Your task to perform on an android device: View the shopping cart on newegg. Add razer nari to the cart on newegg, then select checkout. Image 0: 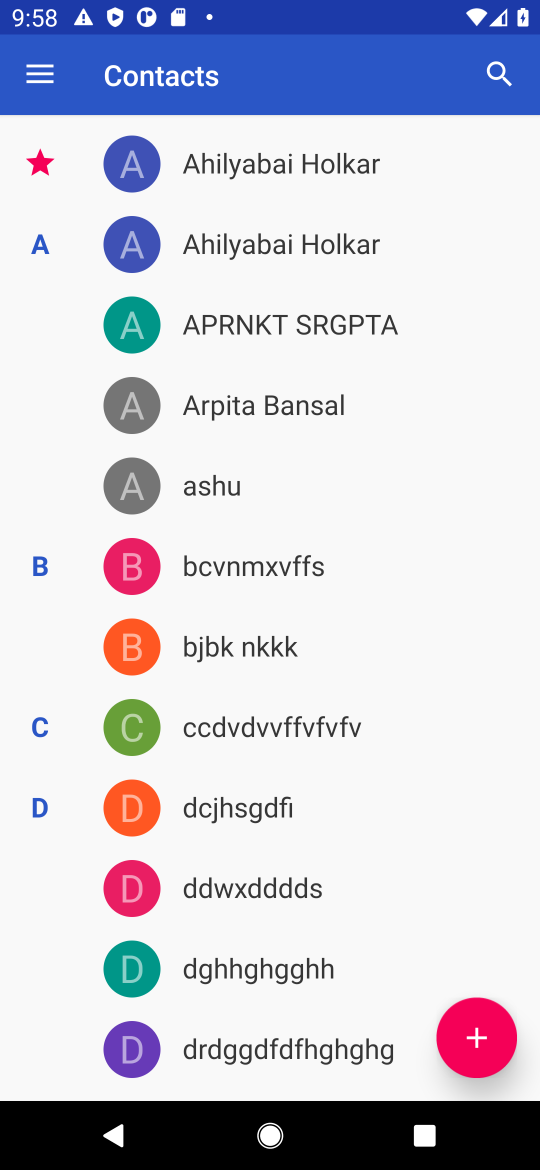
Step 0: press home button
Your task to perform on an android device: View the shopping cart on newegg. Add razer nari to the cart on newegg, then select checkout. Image 1: 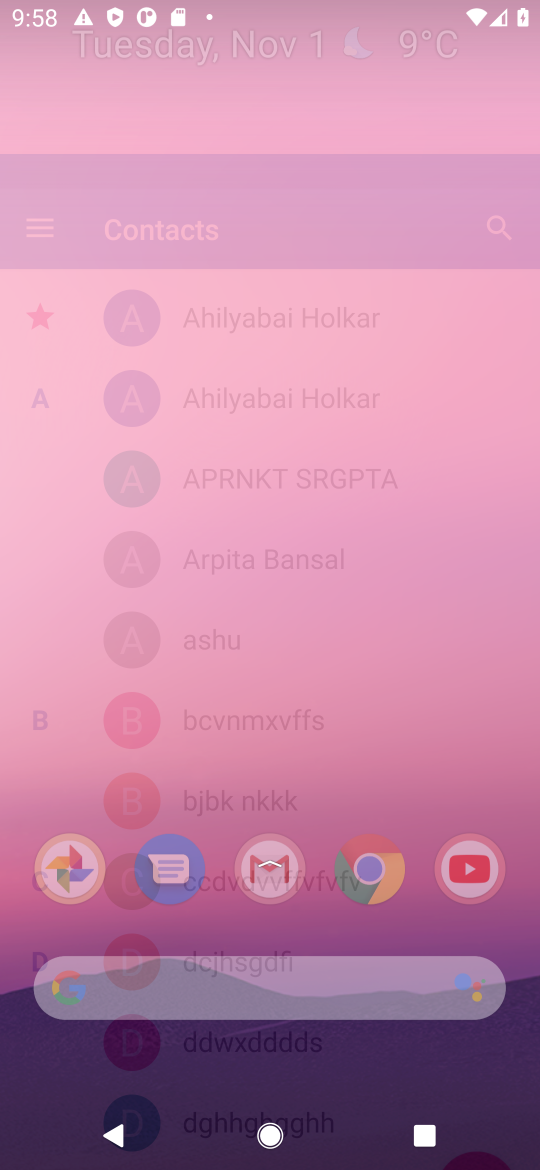
Step 1: press home button
Your task to perform on an android device: View the shopping cart on newegg. Add razer nari to the cart on newegg, then select checkout. Image 2: 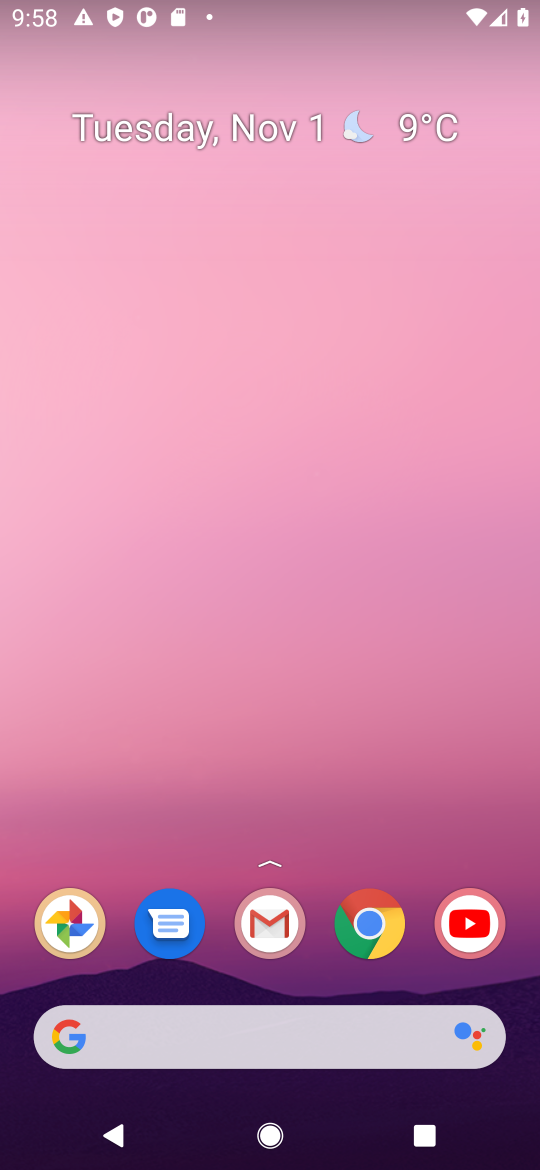
Step 2: drag from (324, 971) to (39, 148)
Your task to perform on an android device: View the shopping cart on newegg. Add razer nari to the cart on newegg, then select checkout. Image 3: 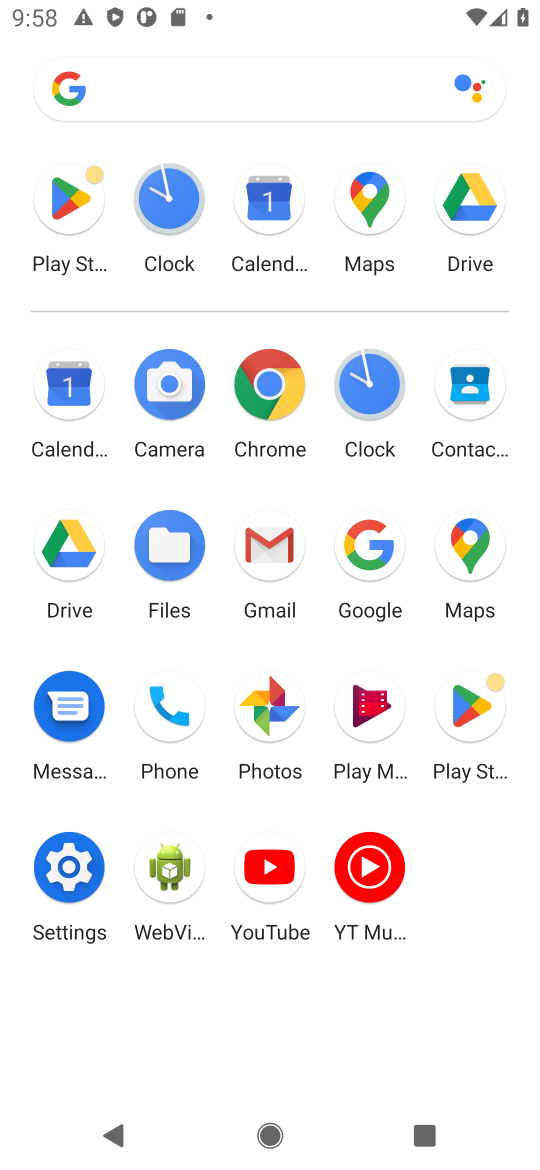
Step 3: click (278, 382)
Your task to perform on an android device: View the shopping cart on newegg. Add razer nari to the cart on newegg, then select checkout. Image 4: 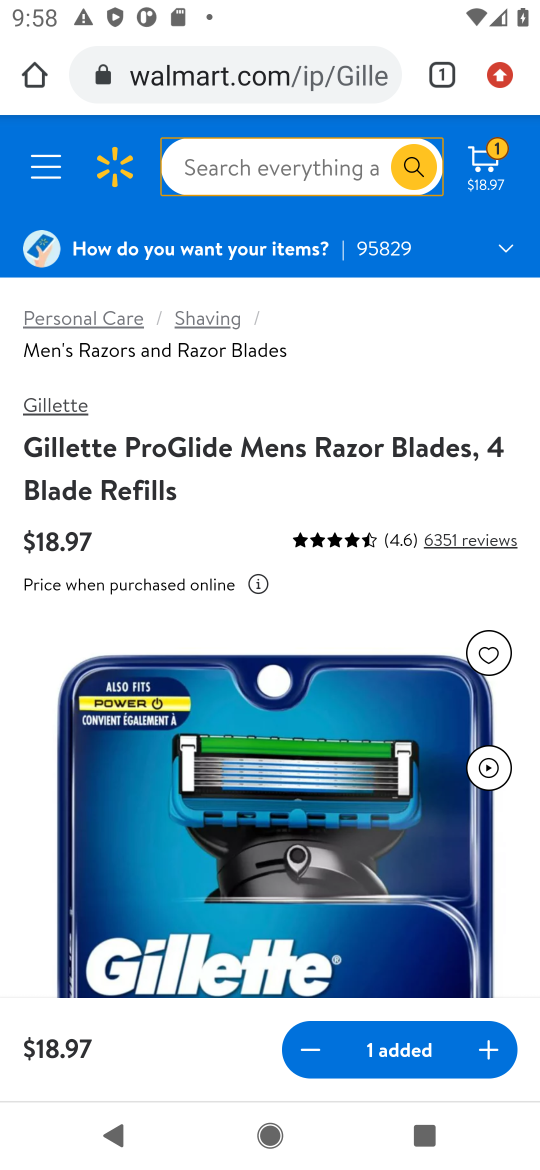
Step 4: click (241, 49)
Your task to perform on an android device: View the shopping cart on newegg. Add razer nari to the cart on newegg, then select checkout. Image 5: 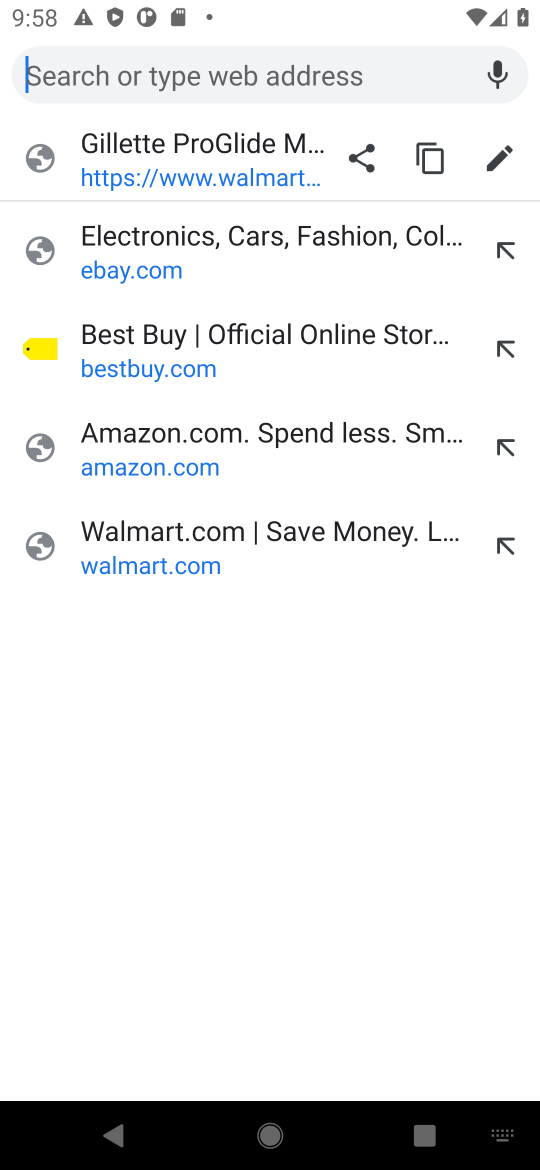
Step 5: type "newegg.com"
Your task to perform on an android device: View the shopping cart on newegg. Add razer nari to the cart on newegg, then select checkout. Image 6: 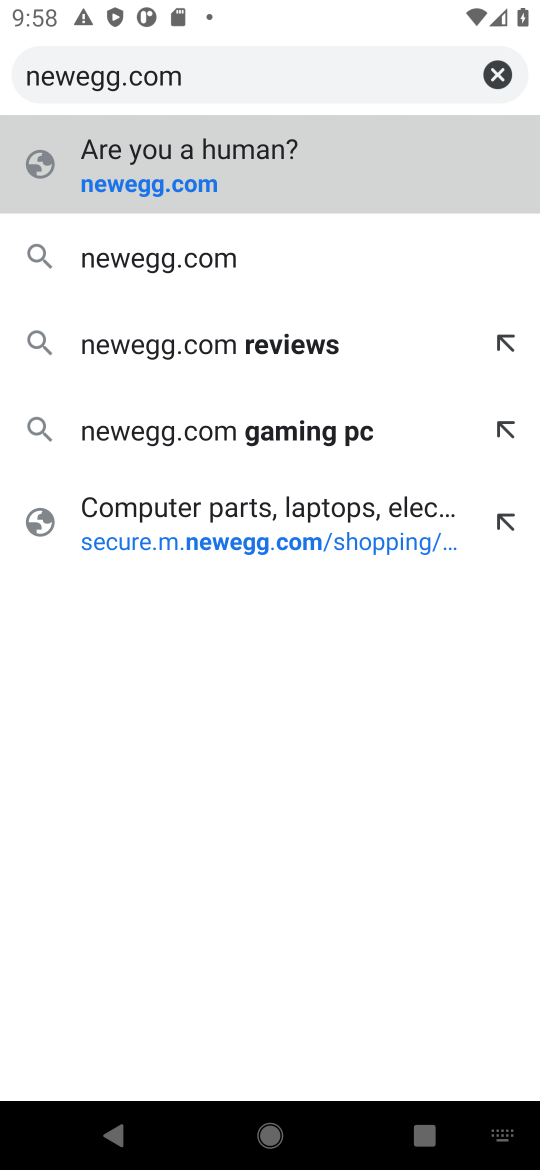
Step 6: press enter
Your task to perform on an android device: View the shopping cart on newegg. Add razer nari to the cart on newegg, then select checkout. Image 7: 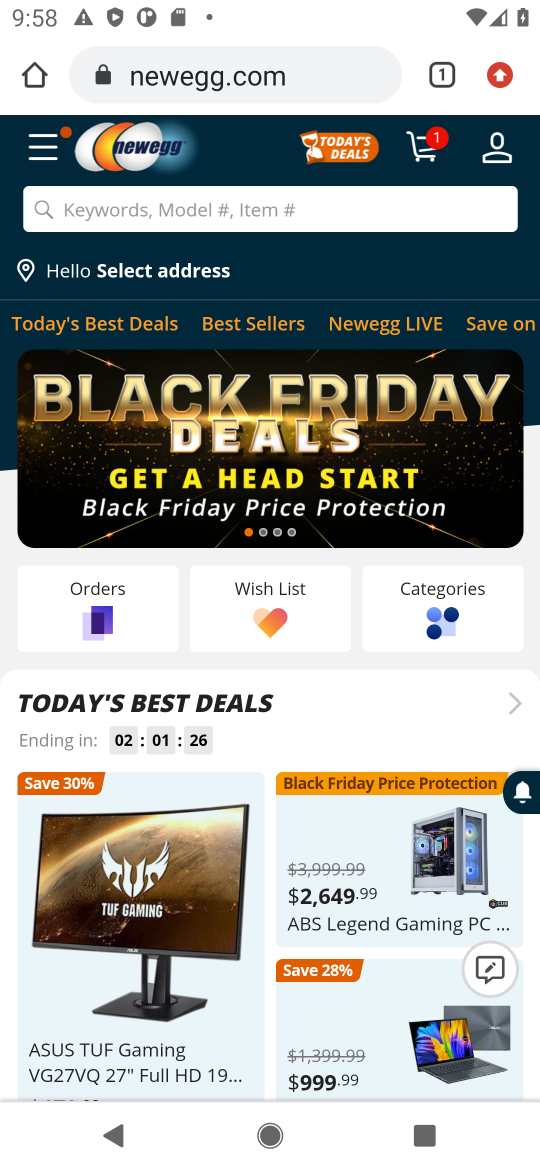
Step 7: click (435, 146)
Your task to perform on an android device: View the shopping cart on newegg. Add razer nari to the cart on newegg, then select checkout. Image 8: 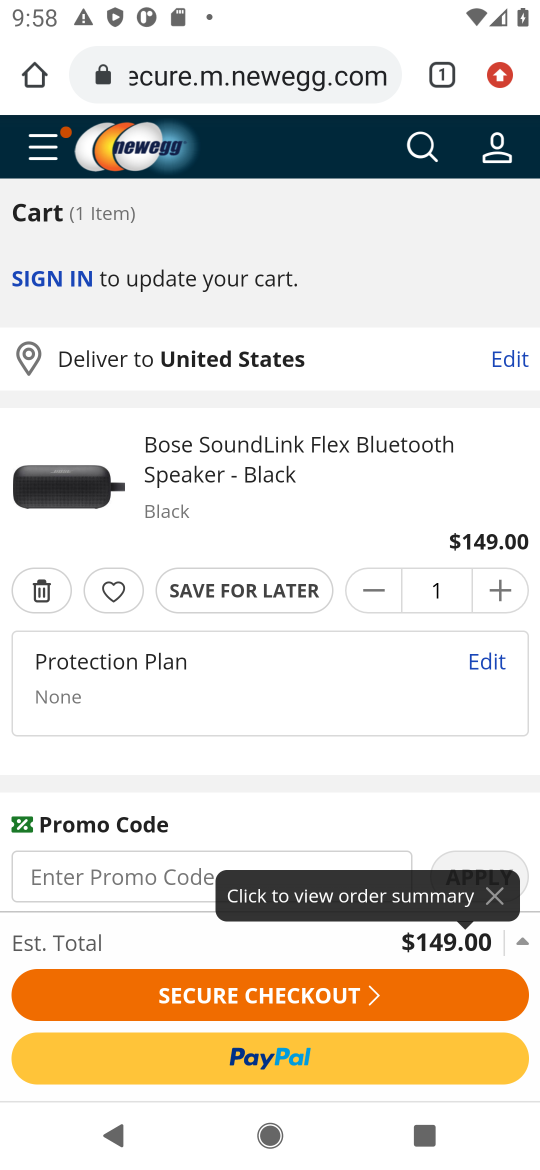
Step 8: click (418, 167)
Your task to perform on an android device: View the shopping cart on newegg. Add razer nari to the cart on newegg, then select checkout. Image 9: 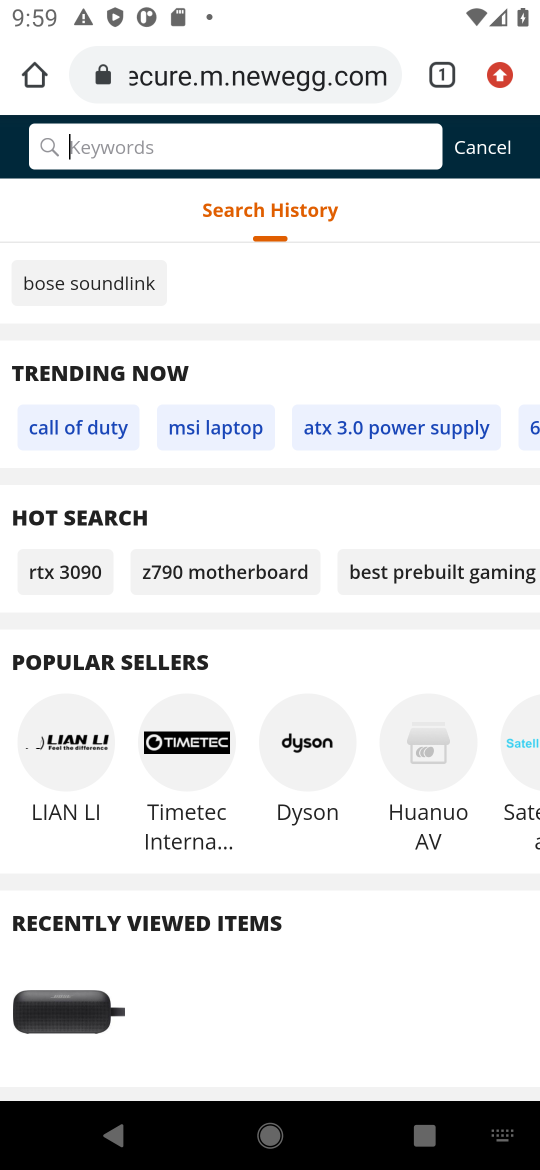
Step 9: type "razer nari"
Your task to perform on an android device: View the shopping cart on newegg. Add razer nari to the cart on newegg, then select checkout. Image 10: 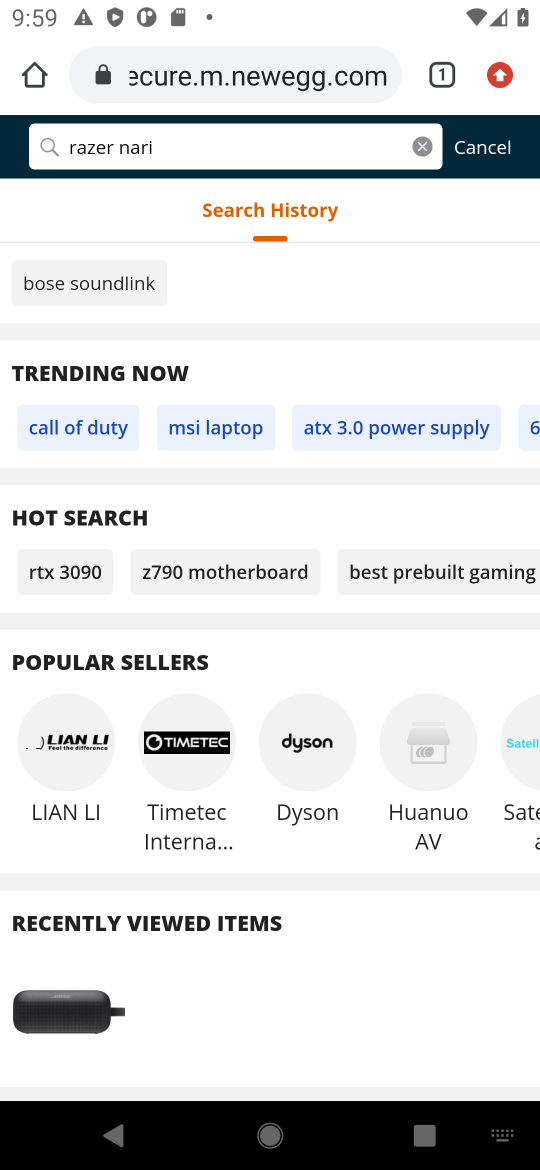
Step 10: press enter
Your task to perform on an android device: View the shopping cart on newegg. Add razer nari to the cart on newegg, then select checkout. Image 11: 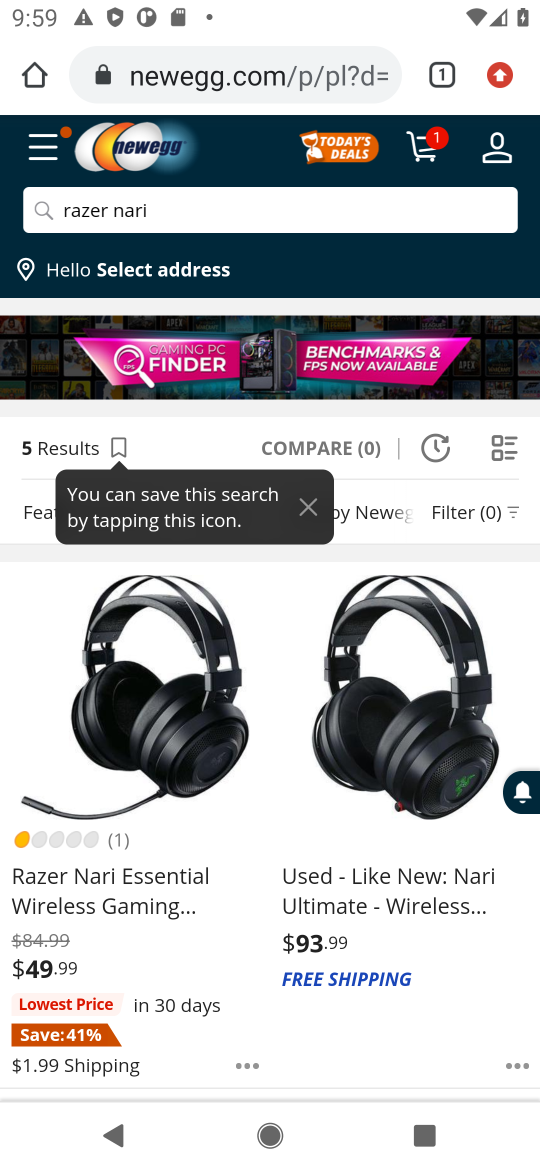
Step 11: click (112, 794)
Your task to perform on an android device: View the shopping cart on newegg. Add razer nari to the cart on newegg, then select checkout. Image 12: 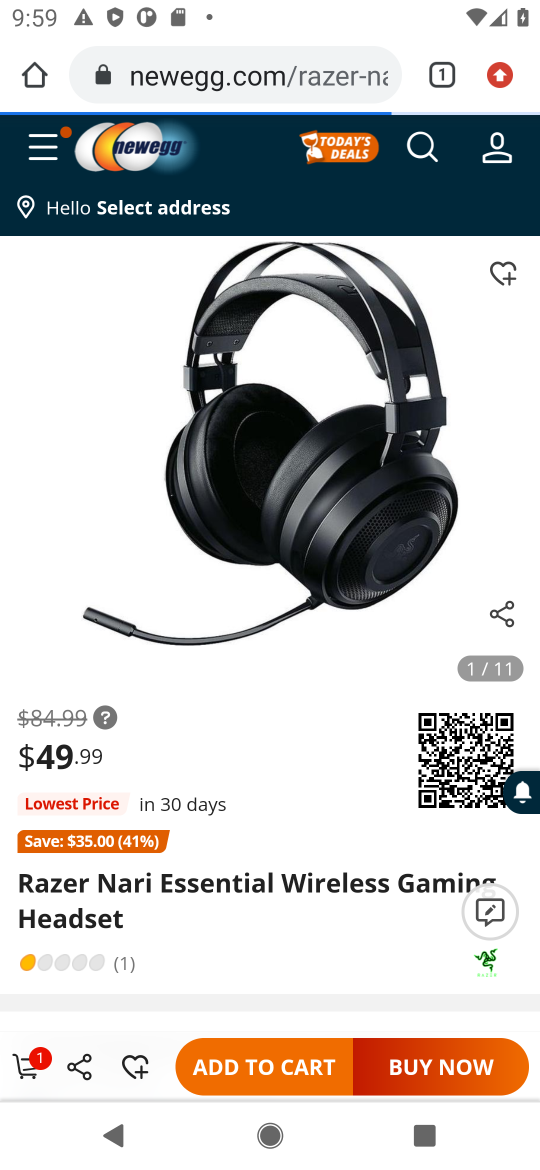
Step 12: click (262, 1065)
Your task to perform on an android device: View the shopping cart on newegg. Add razer nari to the cart on newegg, then select checkout. Image 13: 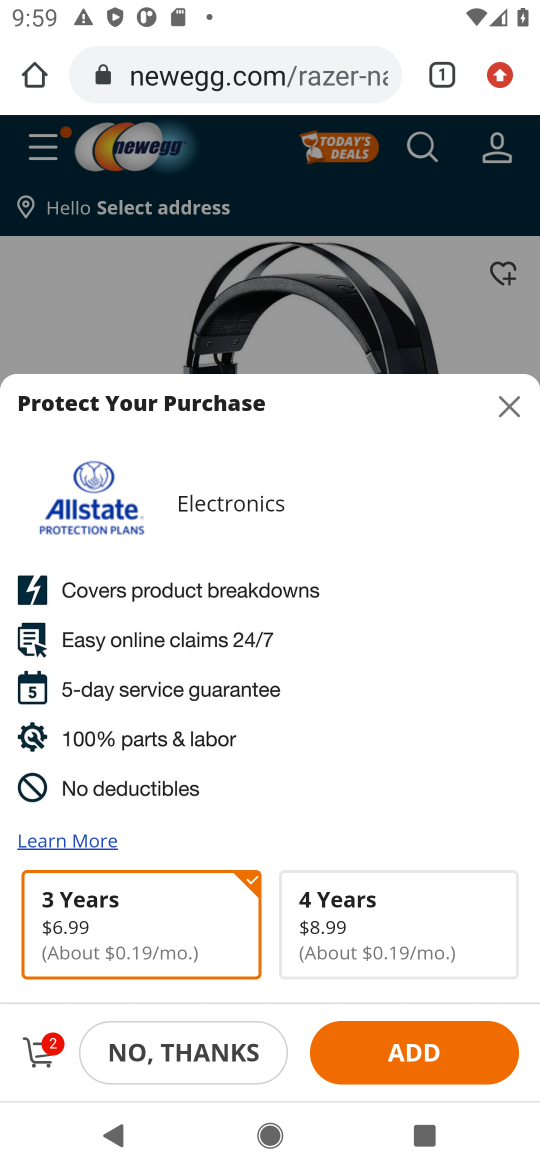
Step 13: click (108, 1038)
Your task to perform on an android device: View the shopping cart on newegg. Add razer nari to the cart on newegg, then select checkout. Image 14: 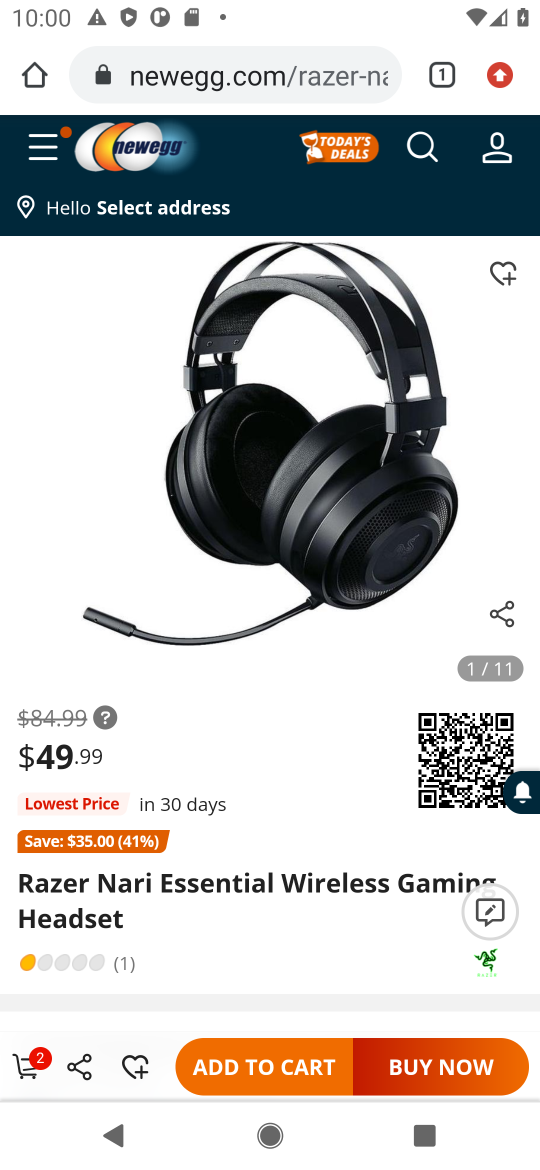
Step 14: click (41, 1068)
Your task to perform on an android device: View the shopping cart on newegg. Add razer nari to the cart on newegg, then select checkout. Image 15: 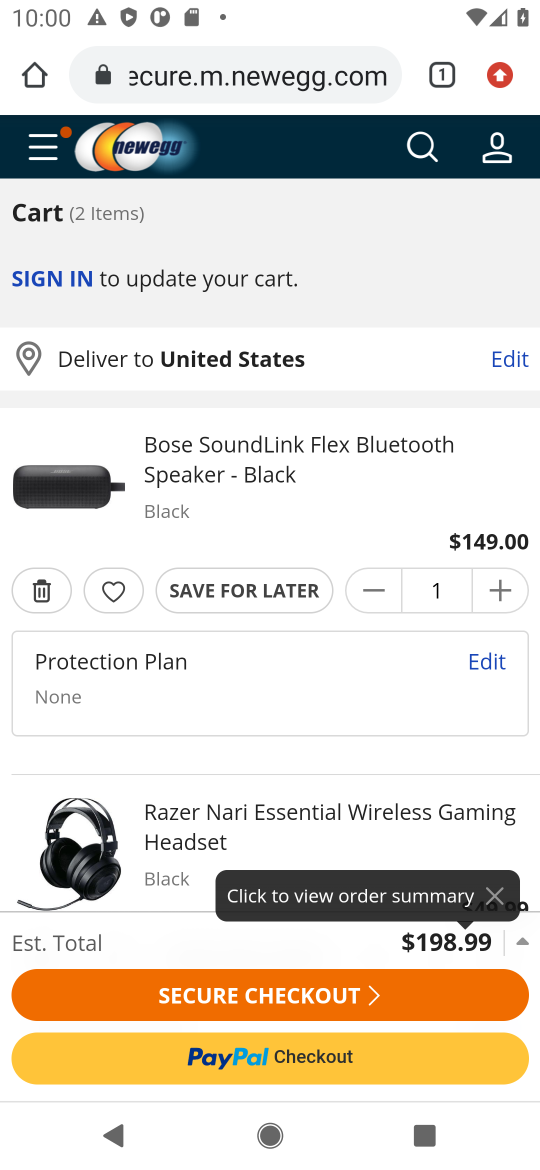
Step 15: click (376, 986)
Your task to perform on an android device: View the shopping cart on newegg. Add razer nari to the cart on newegg, then select checkout. Image 16: 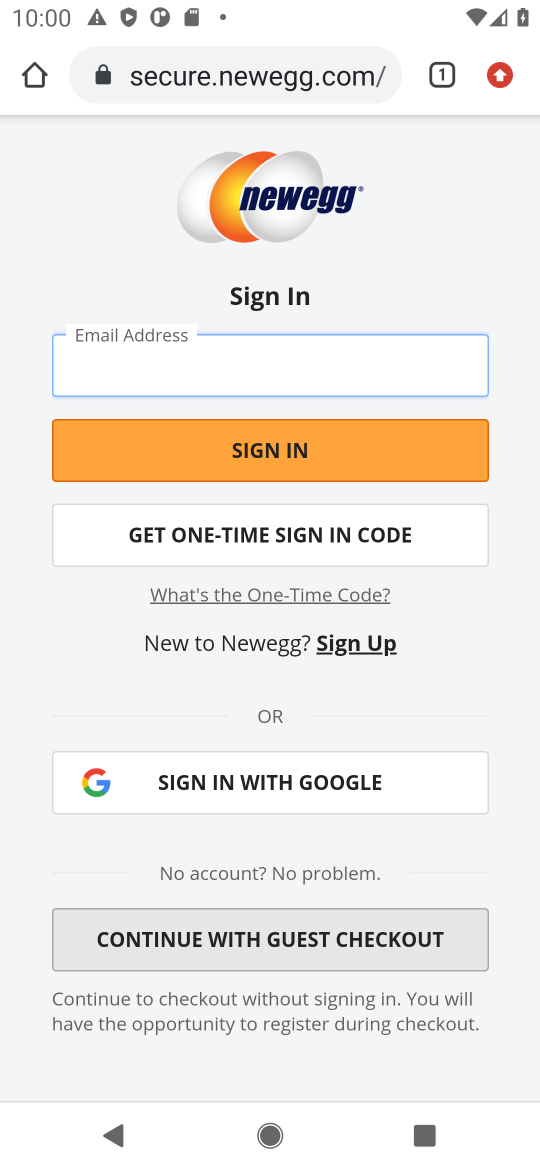
Step 16: task complete